Your task to perform on an android device: uninstall "Life360: Find Family & Friends" Image 0: 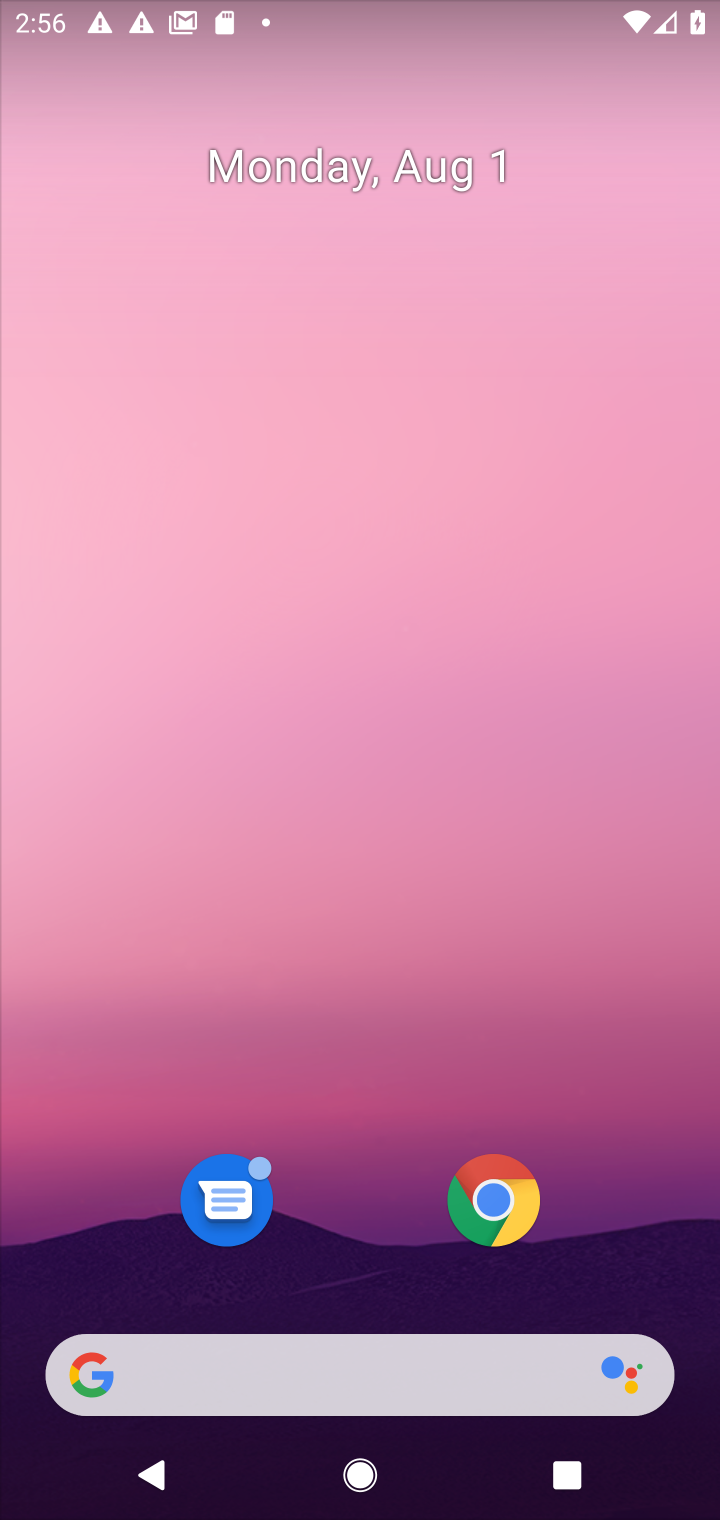
Step 0: drag from (347, 997) to (599, 14)
Your task to perform on an android device: uninstall "Life360: Find Family & Friends" Image 1: 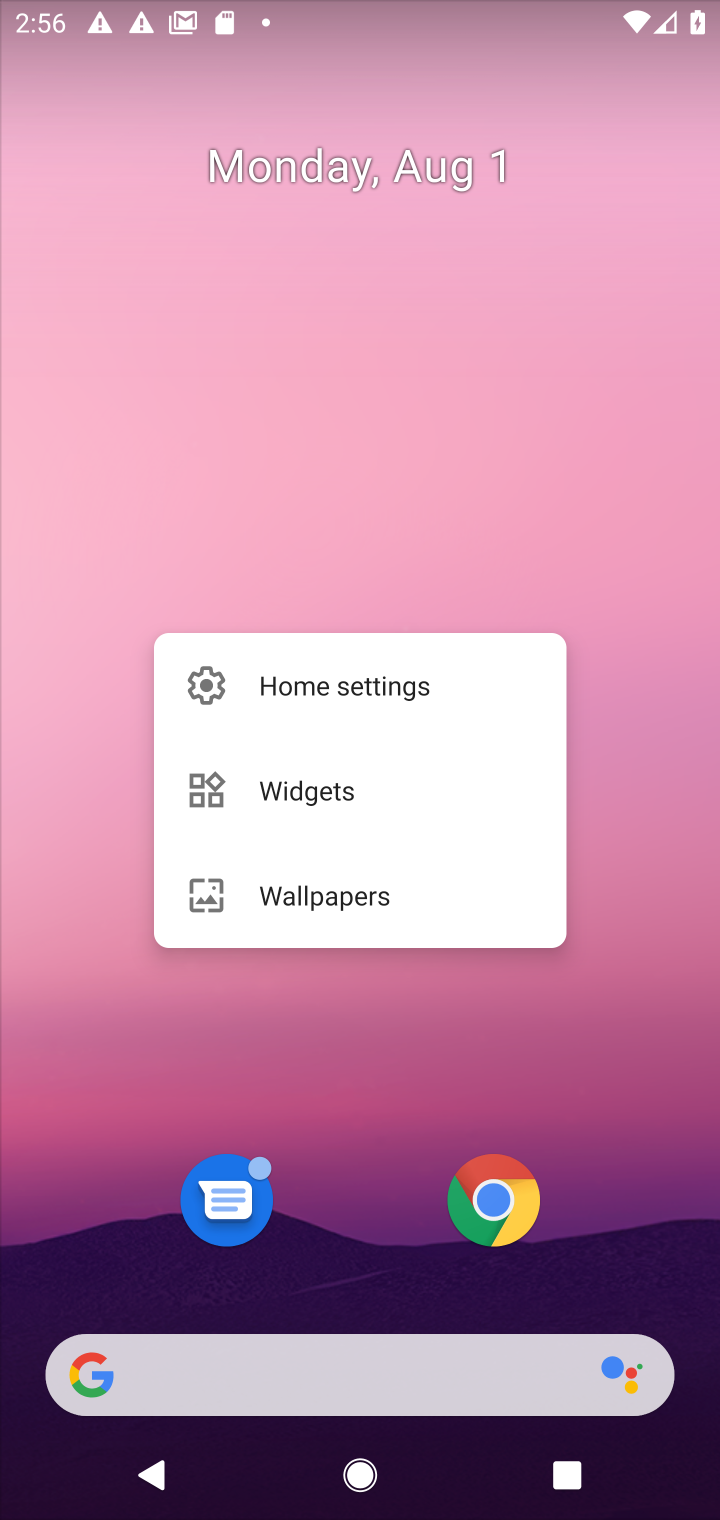
Step 1: click (364, 1269)
Your task to perform on an android device: uninstall "Life360: Find Family & Friends" Image 2: 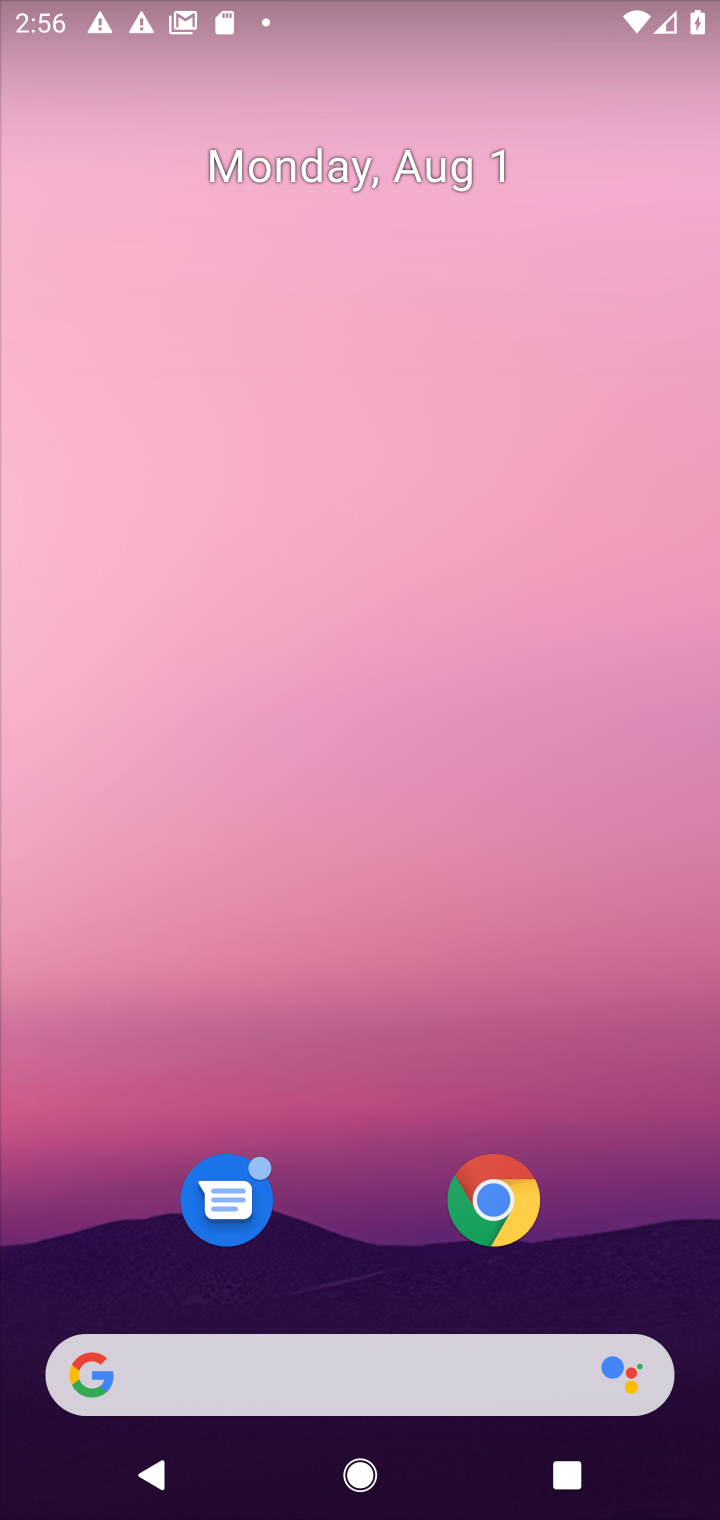
Step 2: drag from (364, 1273) to (473, 2)
Your task to perform on an android device: uninstall "Life360: Find Family & Friends" Image 3: 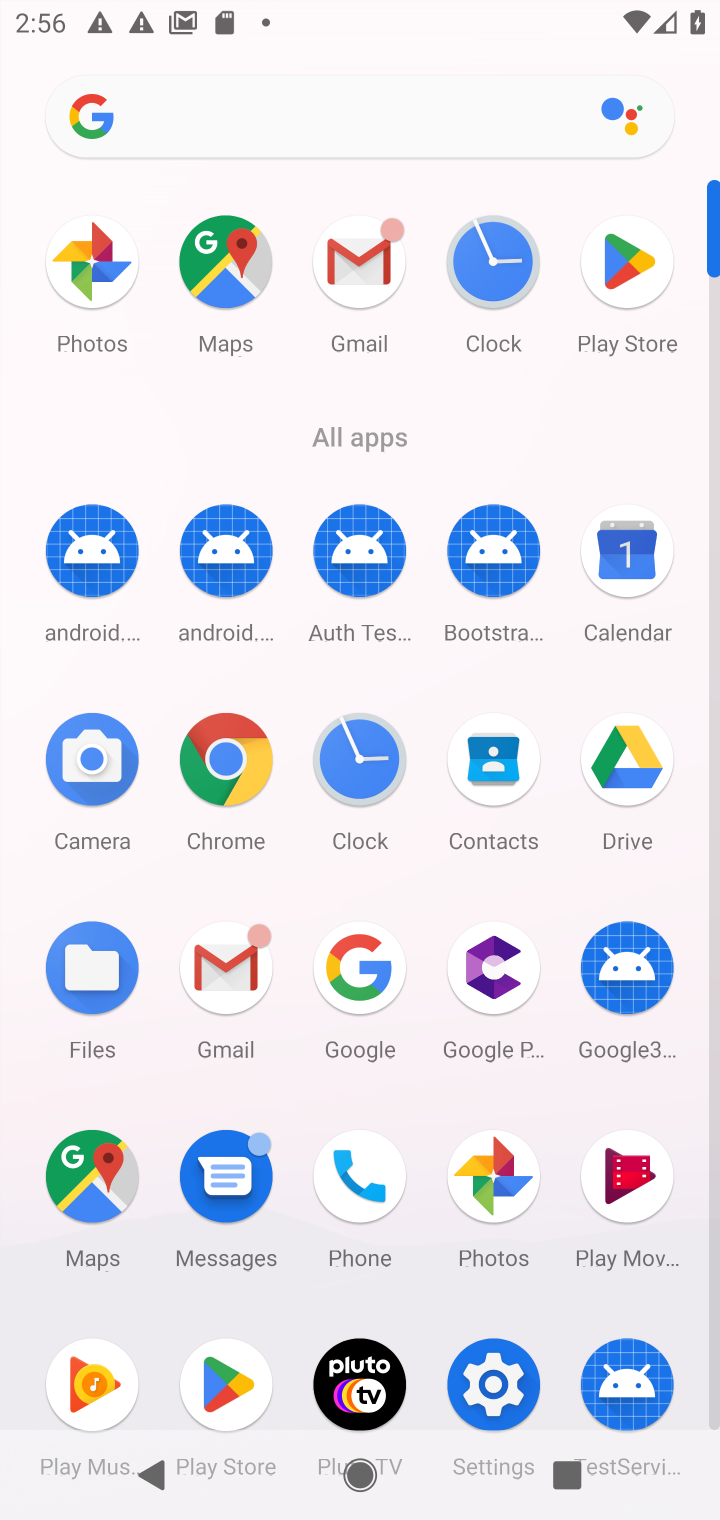
Step 3: click (229, 1386)
Your task to perform on an android device: uninstall "Life360: Find Family & Friends" Image 4: 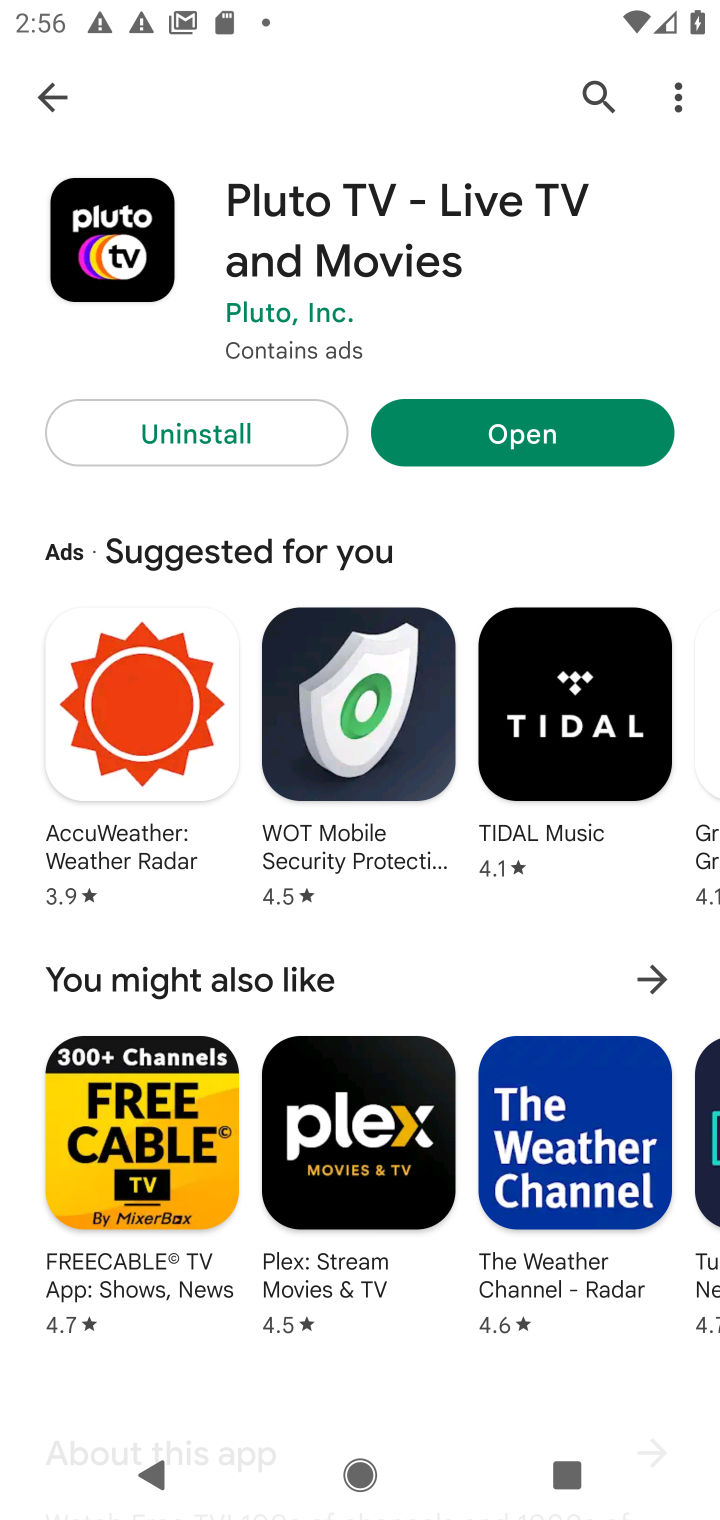
Step 4: click (51, 103)
Your task to perform on an android device: uninstall "Life360: Find Family & Friends" Image 5: 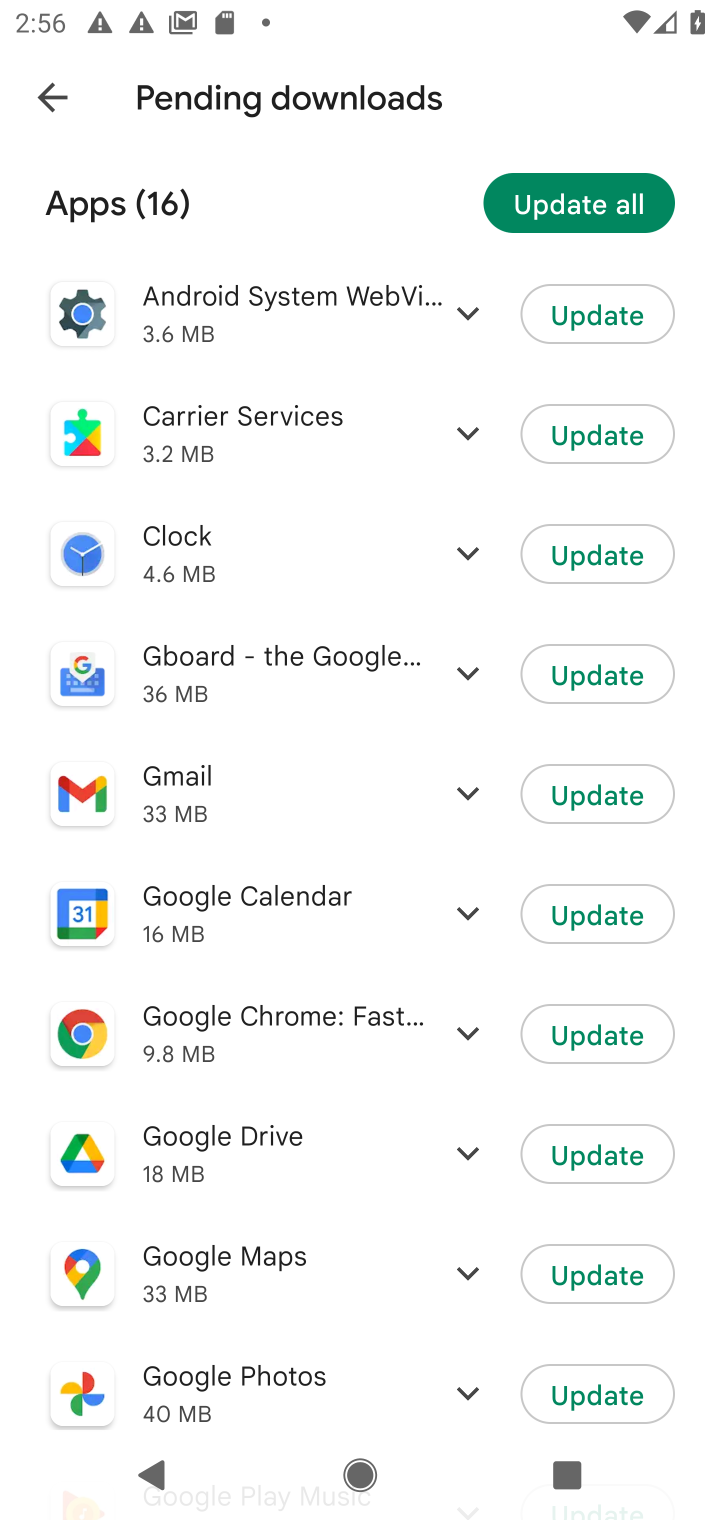
Step 5: click (52, 92)
Your task to perform on an android device: uninstall "Life360: Find Family & Friends" Image 6: 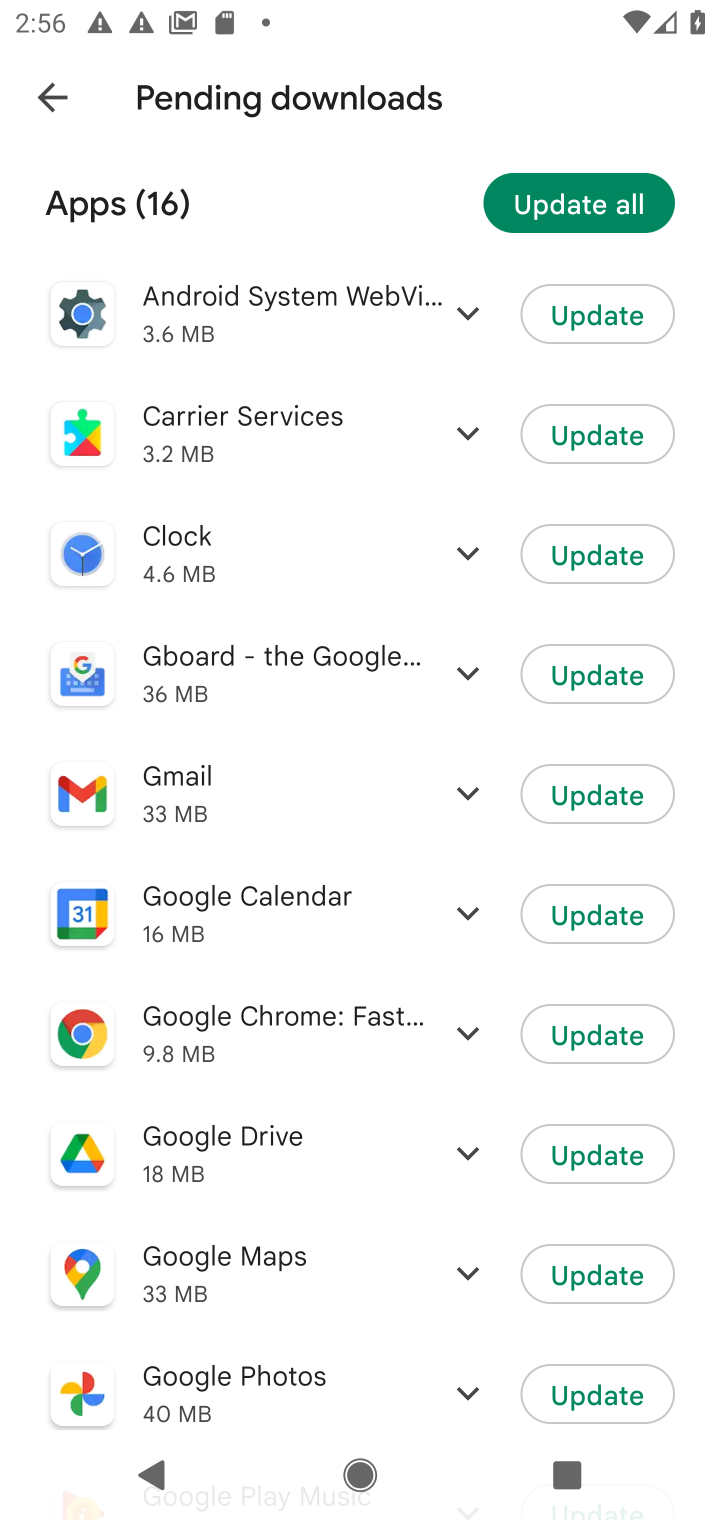
Step 6: click (58, 94)
Your task to perform on an android device: uninstall "Life360: Find Family & Friends" Image 7: 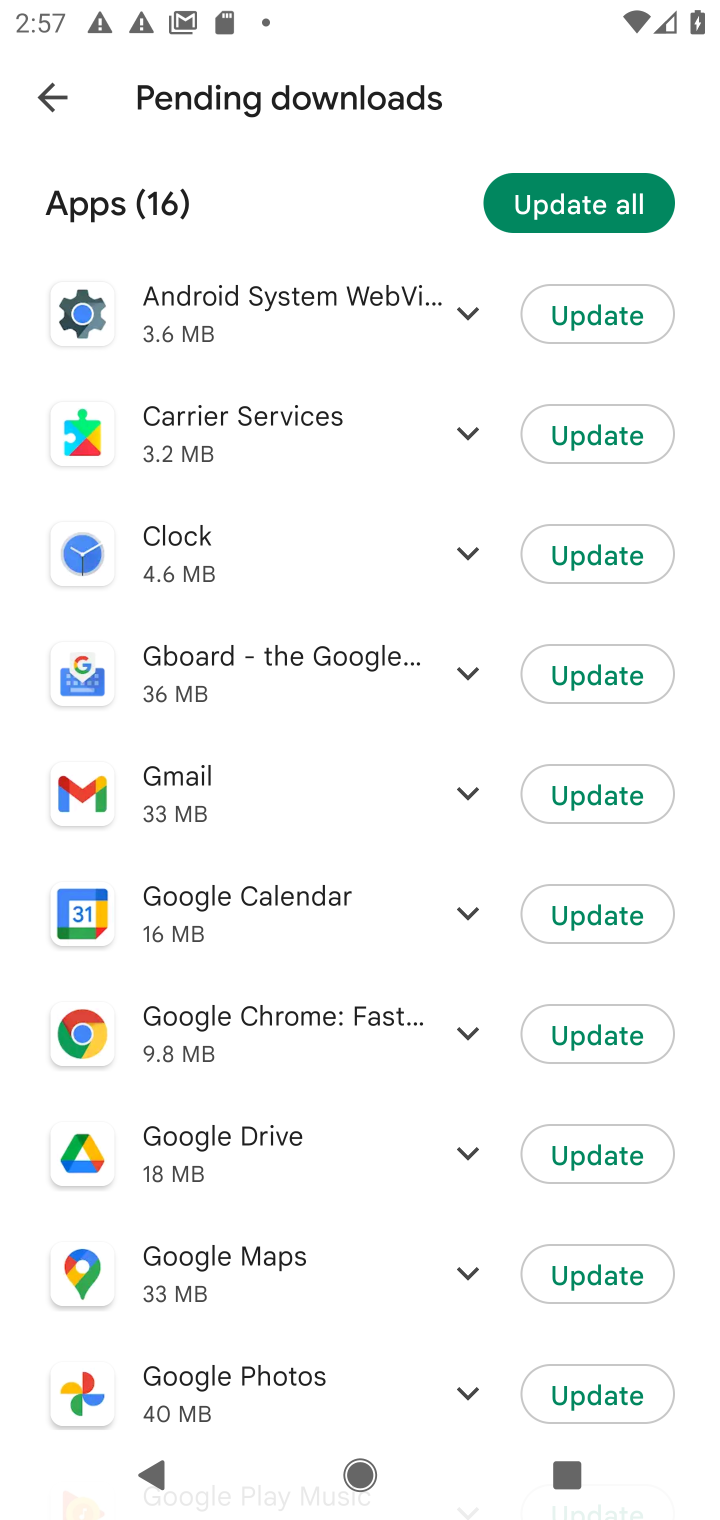
Step 7: press back button
Your task to perform on an android device: uninstall "Life360: Find Family & Friends" Image 8: 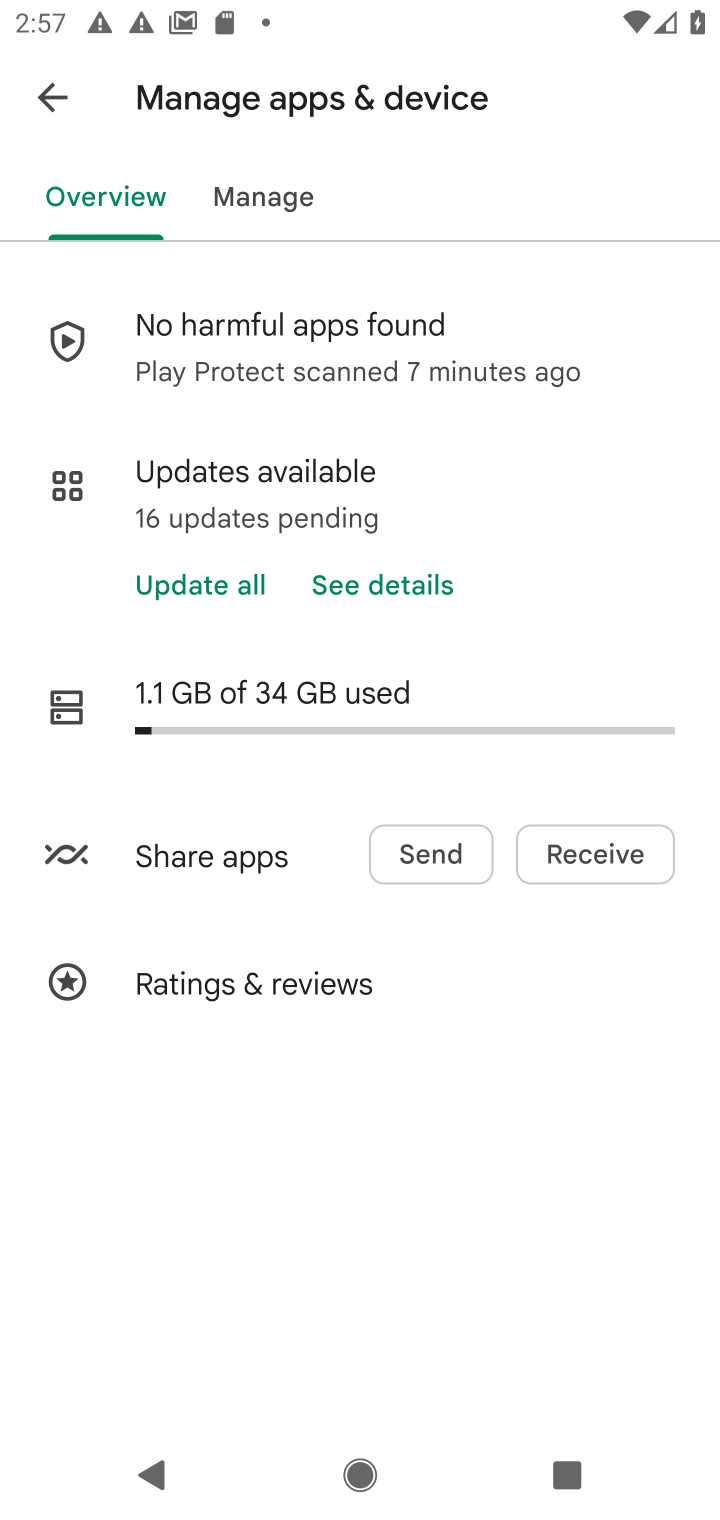
Step 8: click (52, 90)
Your task to perform on an android device: uninstall "Life360: Find Family & Friends" Image 9: 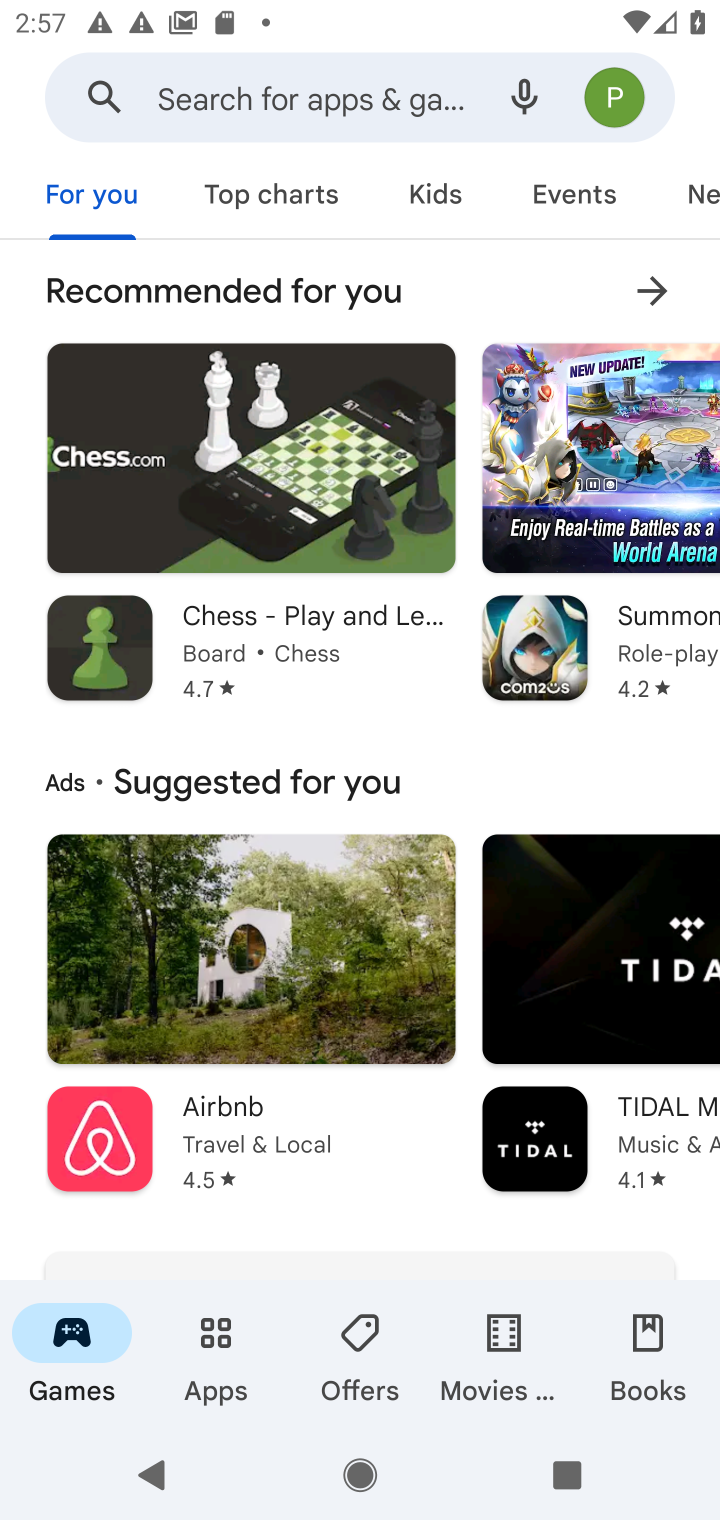
Step 9: click (313, 105)
Your task to perform on an android device: uninstall "Life360: Find Family & Friends" Image 10: 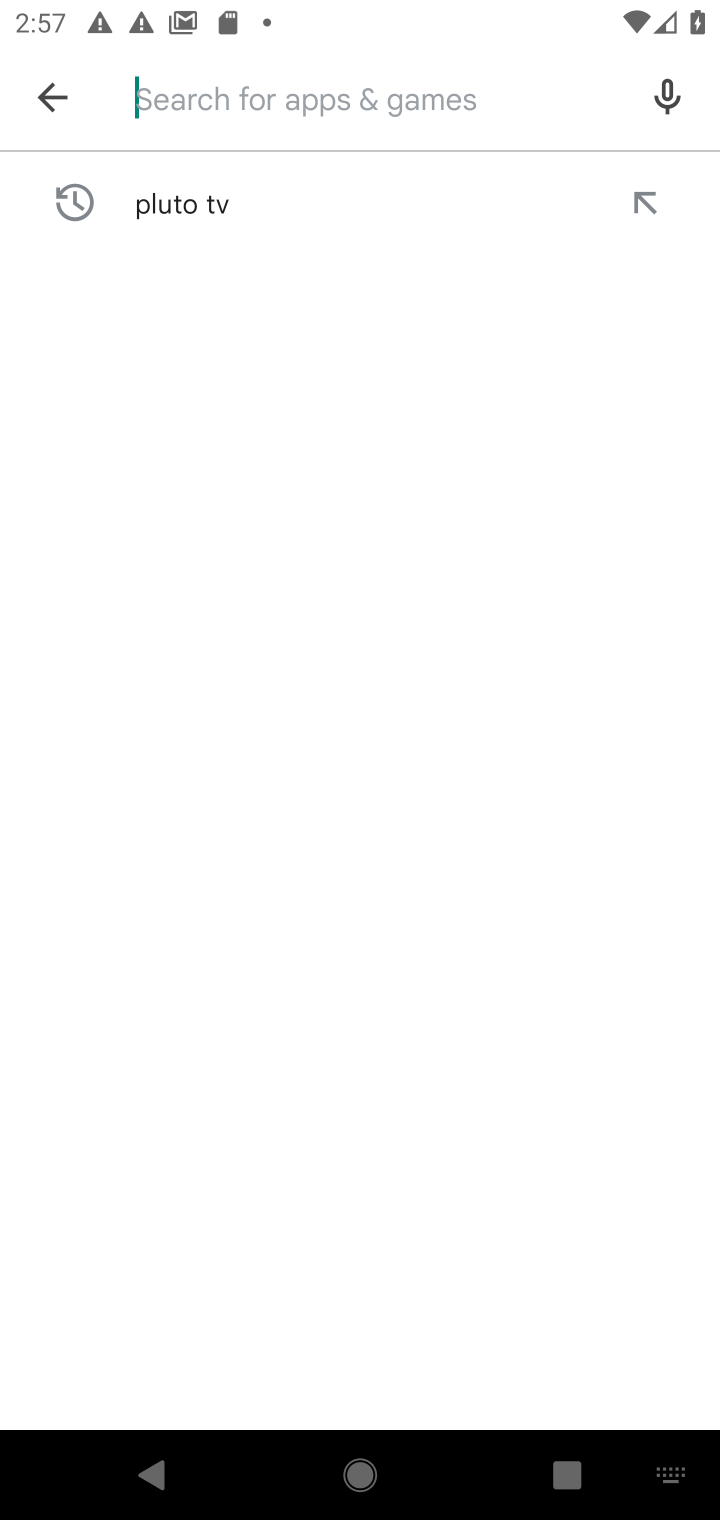
Step 10: type "life360"
Your task to perform on an android device: uninstall "Life360: Find Family & Friends" Image 11: 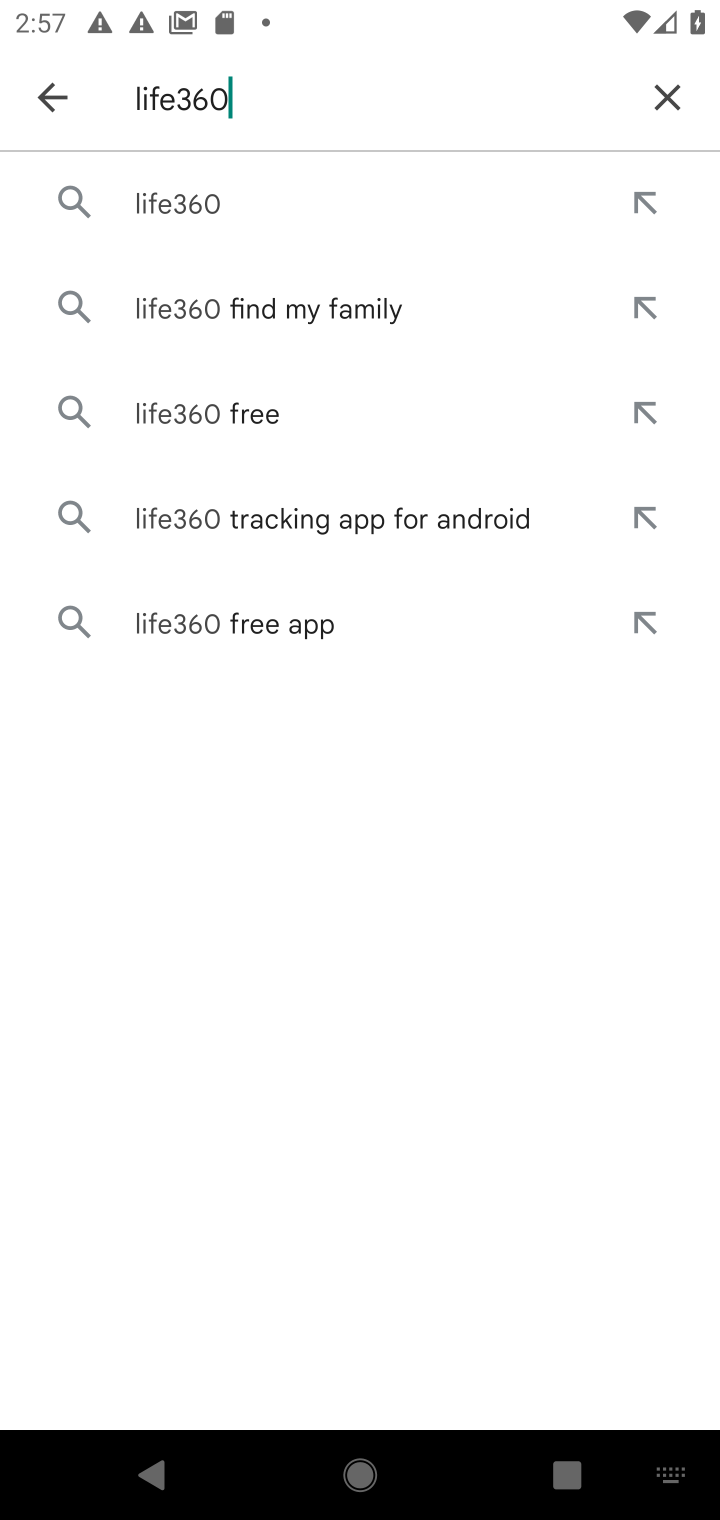
Step 11: click (210, 211)
Your task to perform on an android device: uninstall "Life360: Find Family & Friends" Image 12: 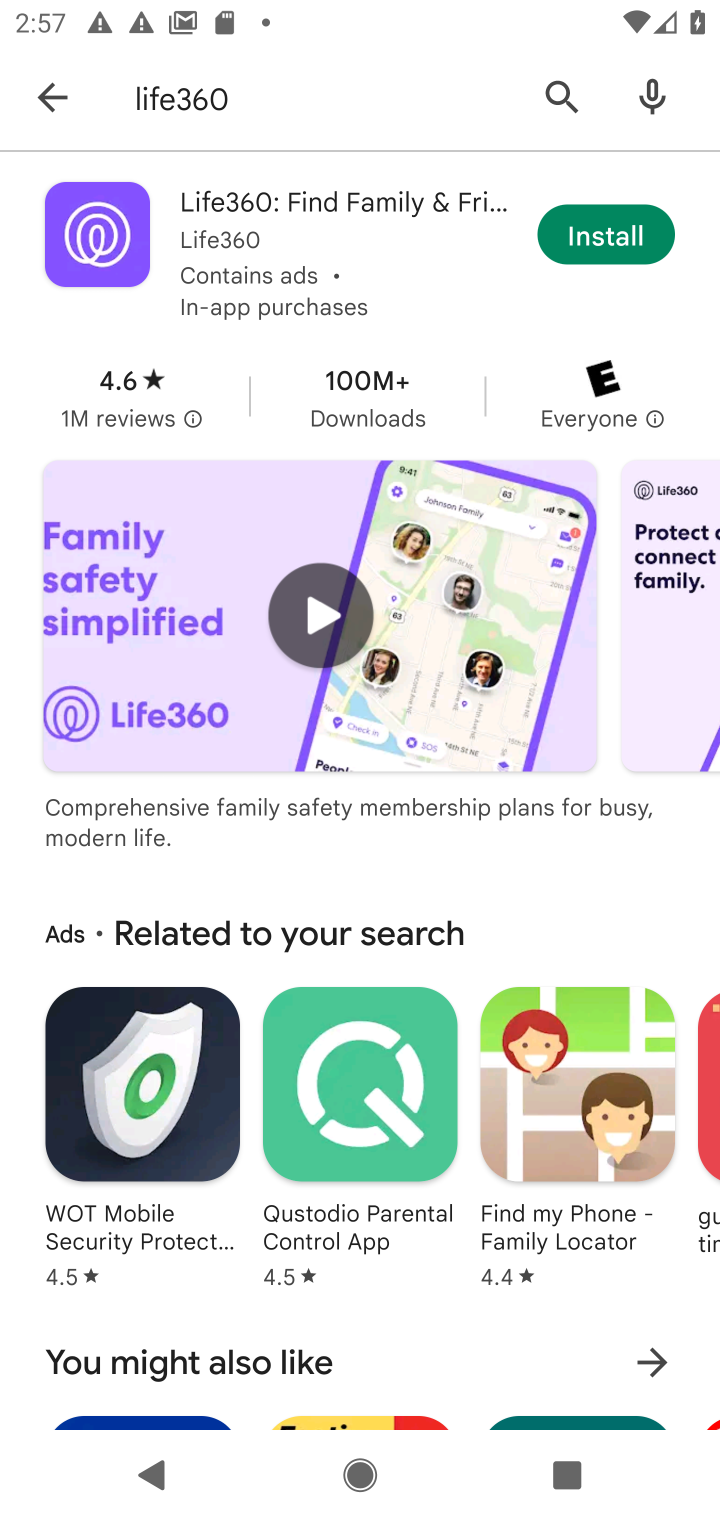
Step 12: task complete